Your task to perform on an android device: Open Google Chrome and click the shortcut for Amazon.com Image 0: 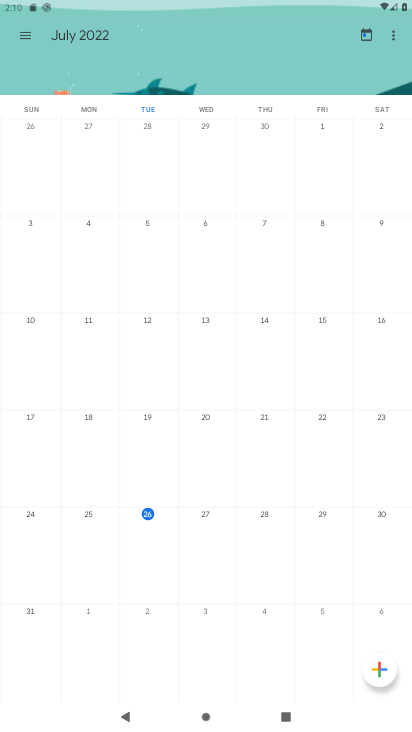
Step 0: press home button
Your task to perform on an android device: Open Google Chrome and click the shortcut for Amazon.com Image 1: 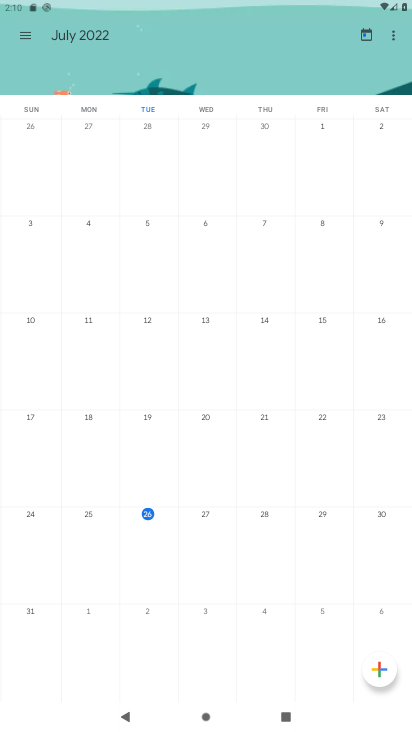
Step 1: press home button
Your task to perform on an android device: Open Google Chrome and click the shortcut for Amazon.com Image 2: 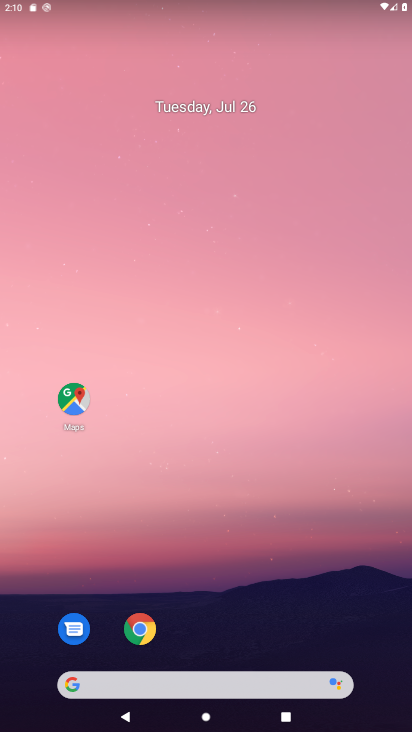
Step 2: click (134, 629)
Your task to perform on an android device: Open Google Chrome and click the shortcut for Amazon.com Image 3: 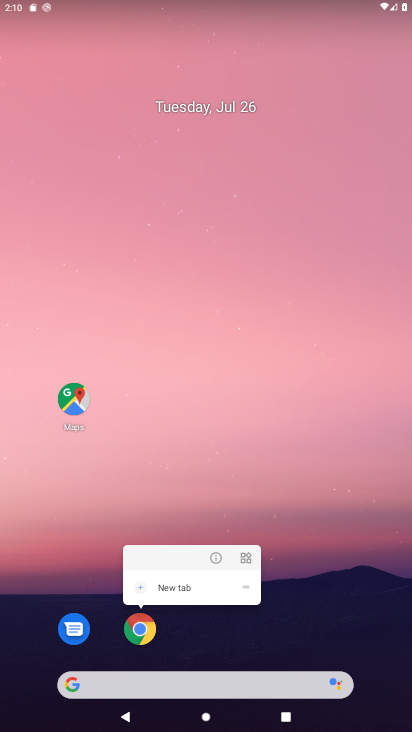
Step 3: click (143, 626)
Your task to perform on an android device: Open Google Chrome and click the shortcut for Amazon.com Image 4: 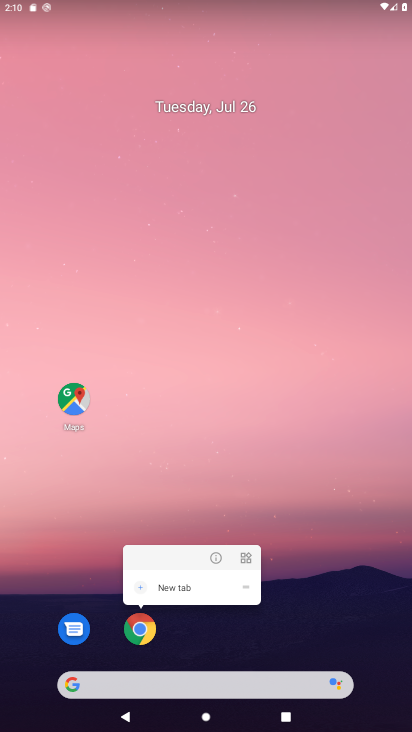
Step 4: click (143, 620)
Your task to perform on an android device: Open Google Chrome and click the shortcut for Amazon.com Image 5: 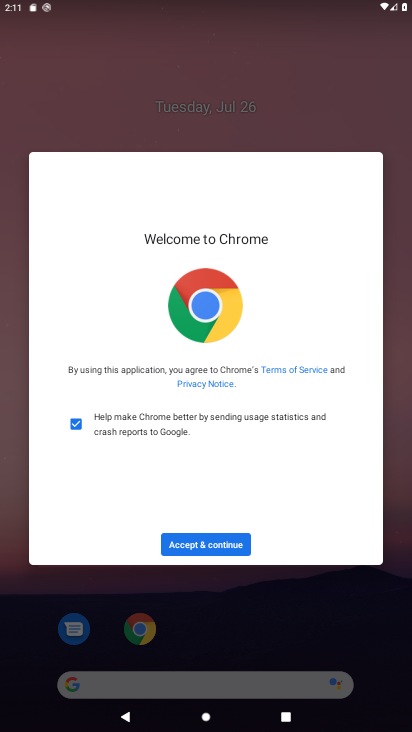
Step 5: click (193, 541)
Your task to perform on an android device: Open Google Chrome and click the shortcut for Amazon.com Image 6: 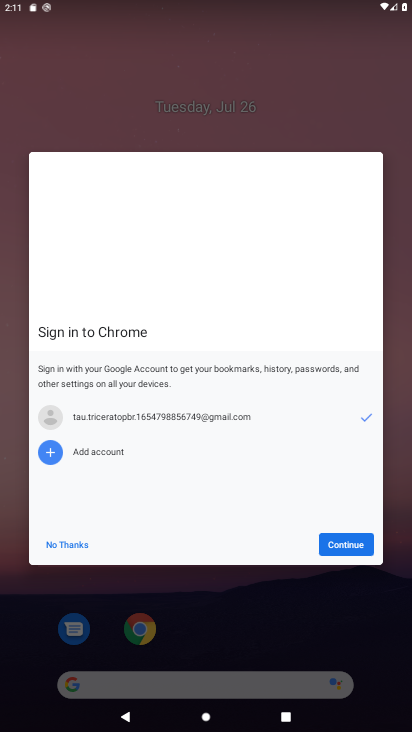
Step 6: click (305, 536)
Your task to perform on an android device: Open Google Chrome and click the shortcut for Amazon.com Image 7: 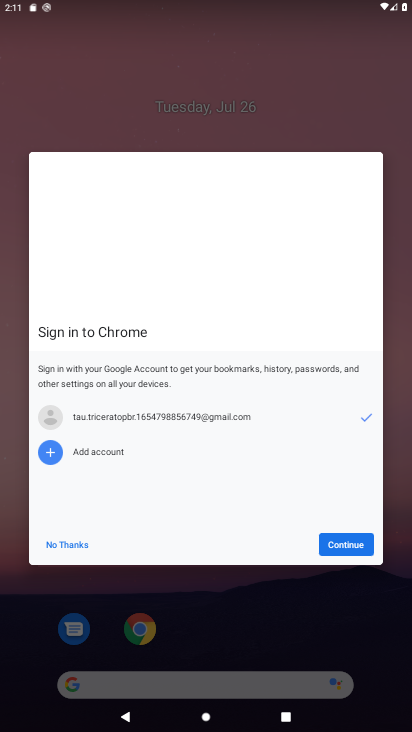
Step 7: click (337, 543)
Your task to perform on an android device: Open Google Chrome and click the shortcut for Amazon.com Image 8: 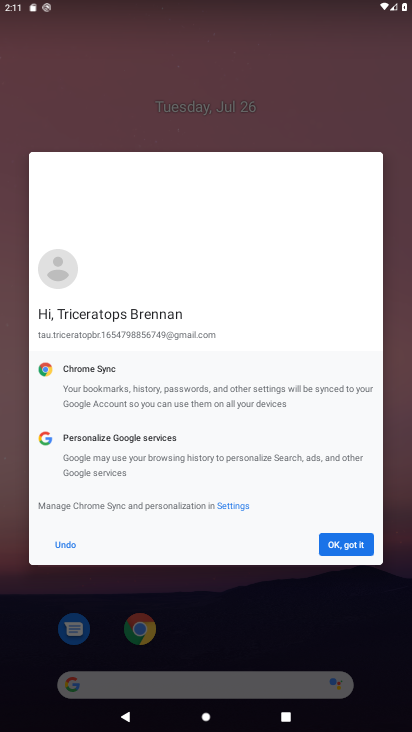
Step 8: click (335, 542)
Your task to perform on an android device: Open Google Chrome and click the shortcut for Amazon.com Image 9: 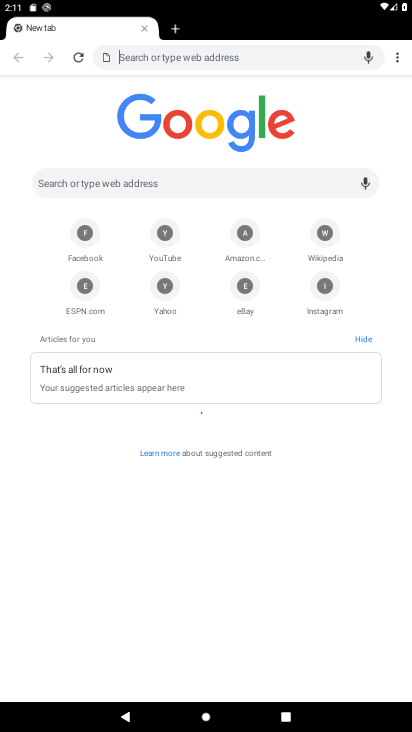
Step 9: click (169, 32)
Your task to perform on an android device: Open Google Chrome and click the shortcut for Amazon.com Image 10: 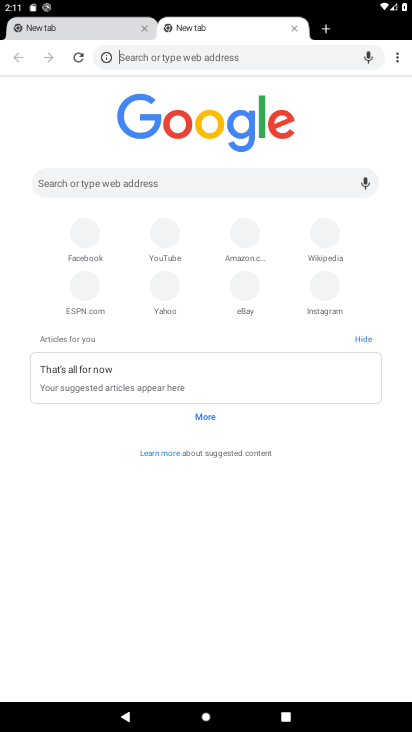
Step 10: click (234, 242)
Your task to perform on an android device: Open Google Chrome and click the shortcut for Amazon.com Image 11: 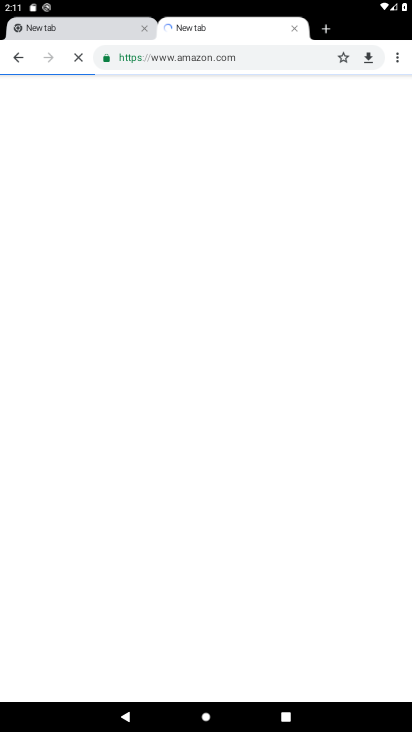
Step 11: click (242, 235)
Your task to perform on an android device: Open Google Chrome and click the shortcut for Amazon.com Image 12: 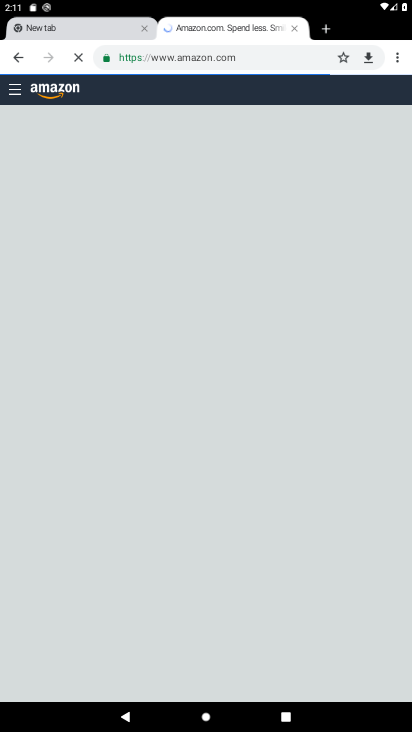
Step 12: task complete